Your task to perform on an android device: Search for vegetarian restaurants on Maps Image 0: 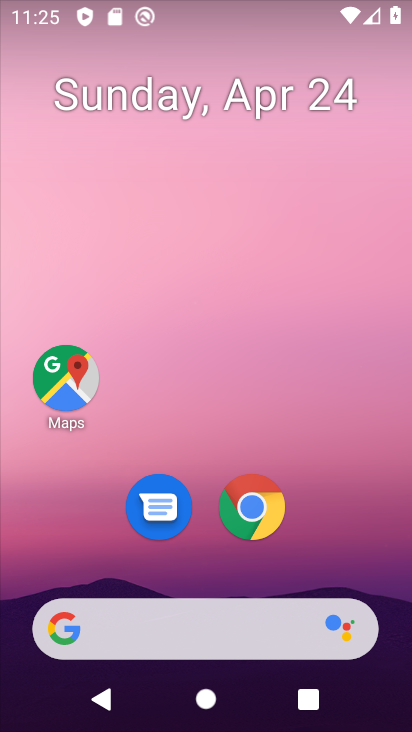
Step 0: drag from (348, 486) to (328, 85)
Your task to perform on an android device: Search for vegetarian restaurants on Maps Image 1: 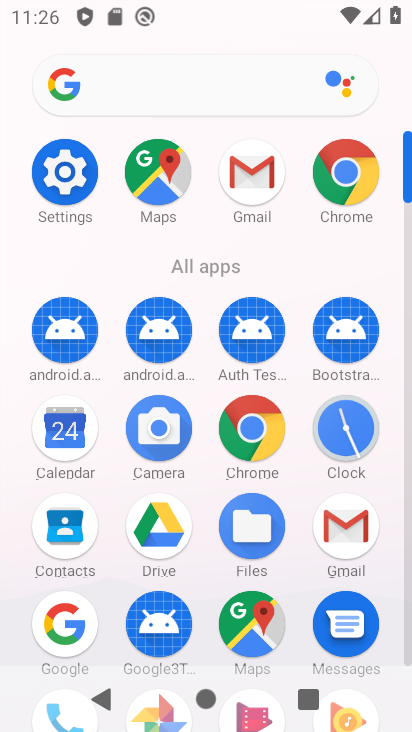
Step 1: click (160, 178)
Your task to perform on an android device: Search for vegetarian restaurants on Maps Image 2: 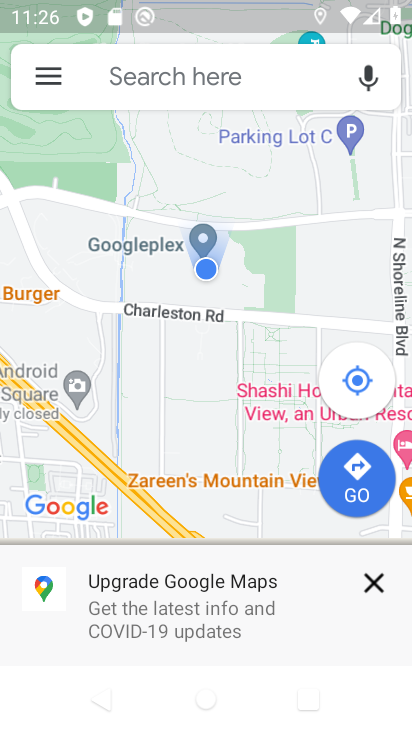
Step 2: click (125, 78)
Your task to perform on an android device: Search for vegetarian restaurants on Maps Image 3: 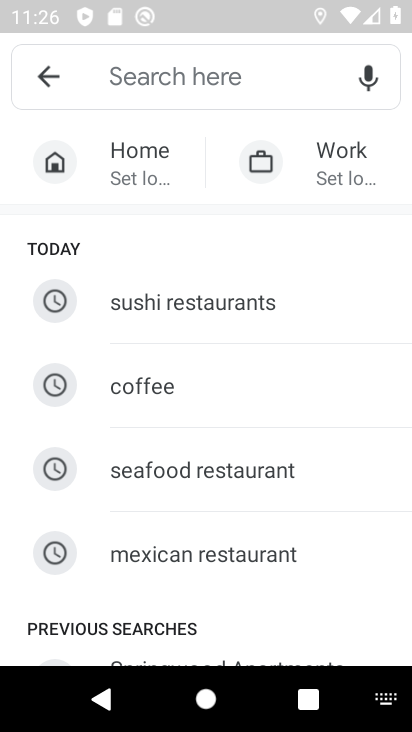
Step 3: type "vegetarian restaurants "
Your task to perform on an android device: Search for vegetarian restaurants on Maps Image 4: 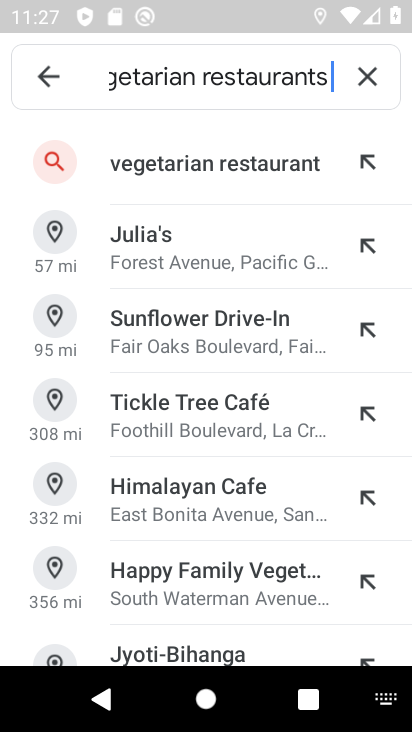
Step 4: click (158, 163)
Your task to perform on an android device: Search for vegetarian restaurants on Maps Image 5: 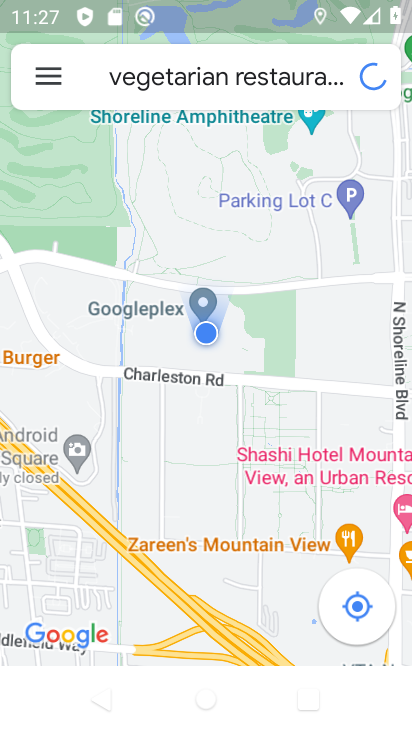
Step 5: click (242, 160)
Your task to perform on an android device: Search for vegetarian restaurants on Maps Image 6: 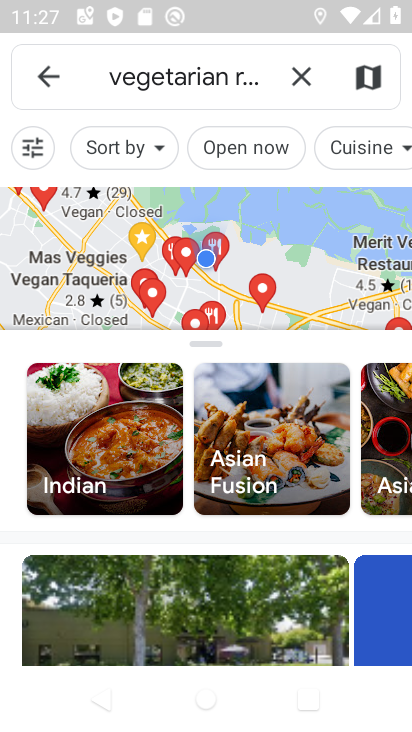
Step 6: task complete